Your task to perform on an android device: Open Android settings Image 0: 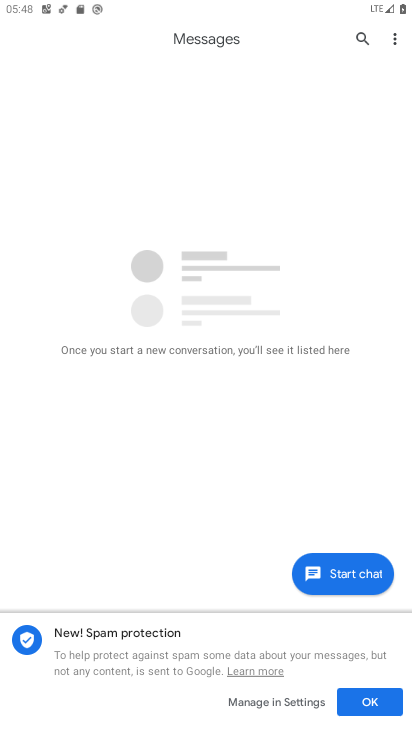
Step 0: press home button
Your task to perform on an android device: Open Android settings Image 1: 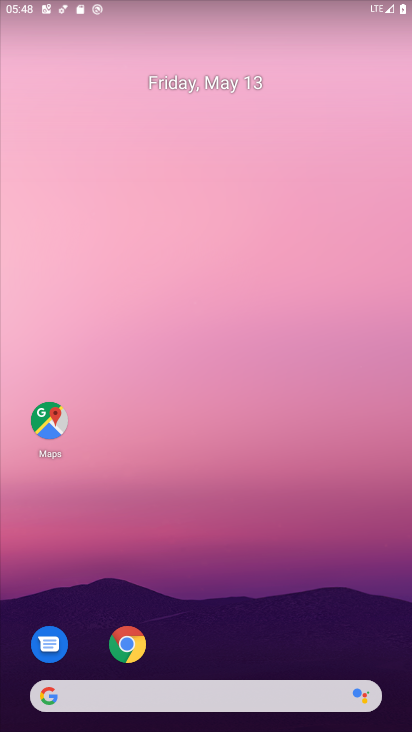
Step 1: drag from (202, 653) to (282, 6)
Your task to perform on an android device: Open Android settings Image 2: 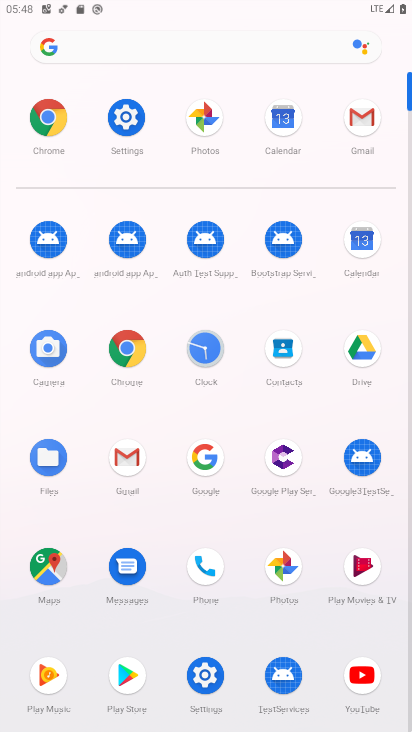
Step 2: click (123, 136)
Your task to perform on an android device: Open Android settings Image 3: 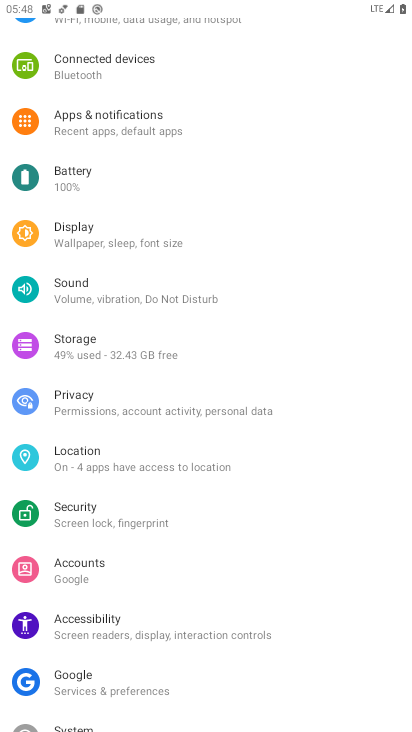
Step 3: drag from (149, 531) to (207, 80)
Your task to perform on an android device: Open Android settings Image 4: 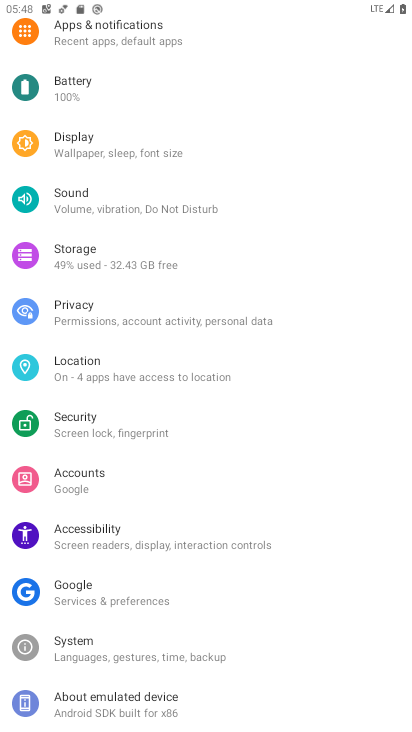
Step 4: click (117, 715)
Your task to perform on an android device: Open Android settings Image 5: 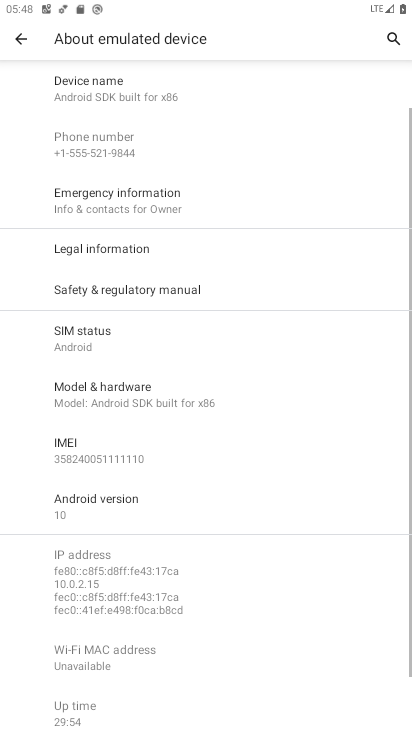
Step 5: click (119, 509)
Your task to perform on an android device: Open Android settings Image 6: 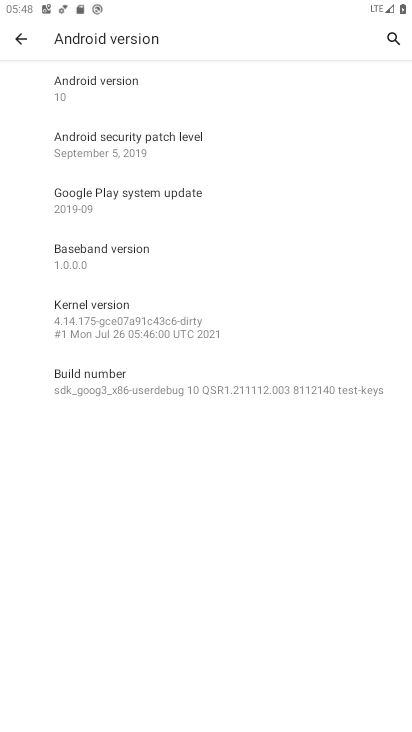
Step 6: task complete